Your task to perform on an android device: toggle improve location accuracy Image 0: 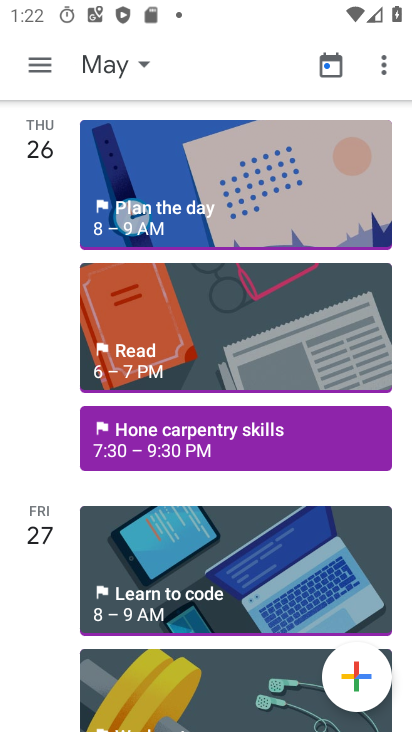
Step 0: press home button
Your task to perform on an android device: toggle improve location accuracy Image 1: 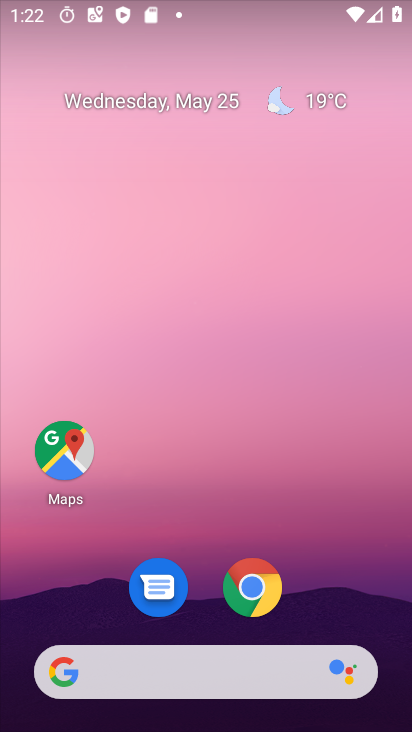
Step 1: drag from (226, 706) to (228, 209)
Your task to perform on an android device: toggle improve location accuracy Image 2: 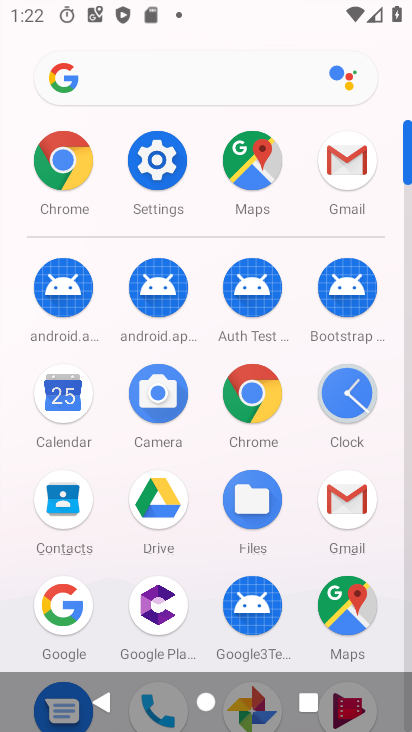
Step 2: click (165, 161)
Your task to perform on an android device: toggle improve location accuracy Image 3: 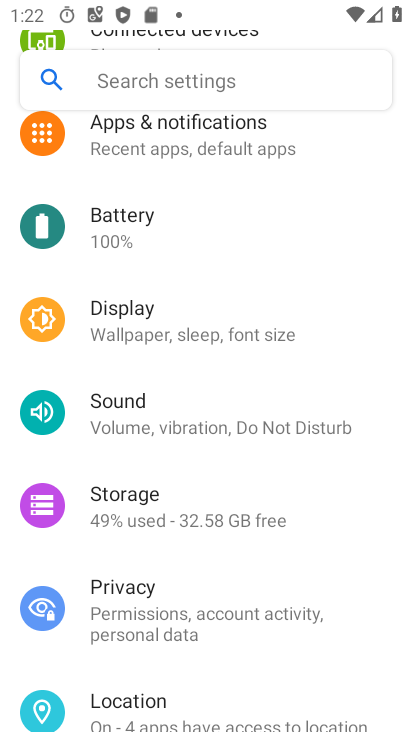
Step 3: click (159, 704)
Your task to perform on an android device: toggle improve location accuracy Image 4: 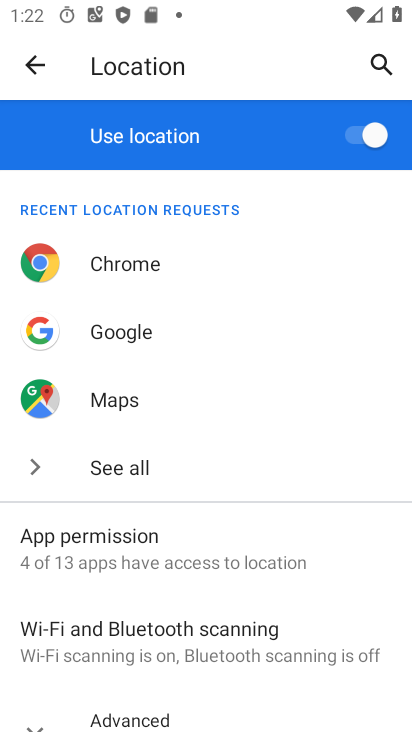
Step 4: drag from (168, 675) to (181, 214)
Your task to perform on an android device: toggle improve location accuracy Image 5: 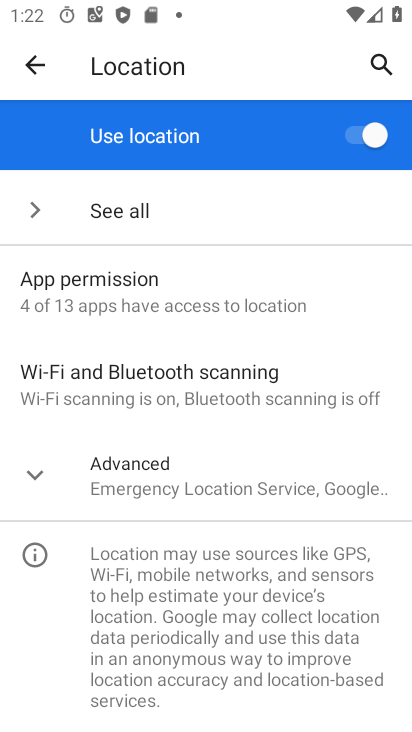
Step 5: click (147, 469)
Your task to perform on an android device: toggle improve location accuracy Image 6: 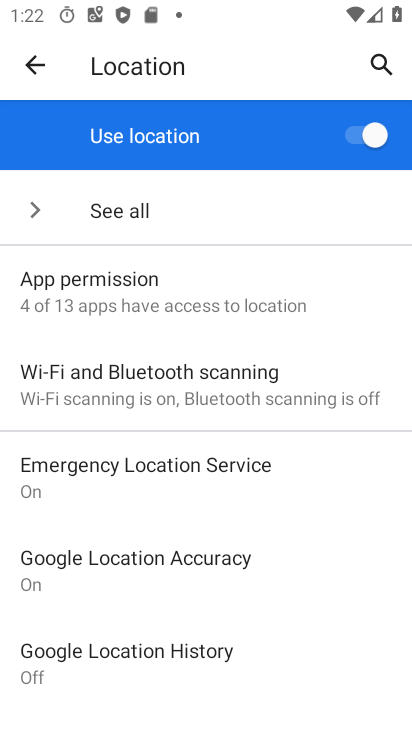
Step 6: click (190, 557)
Your task to perform on an android device: toggle improve location accuracy Image 7: 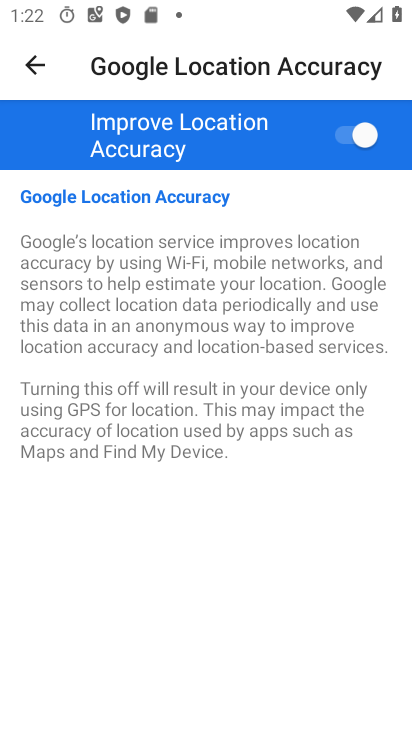
Step 7: click (338, 137)
Your task to perform on an android device: toggle improve location accuracy Image 8: 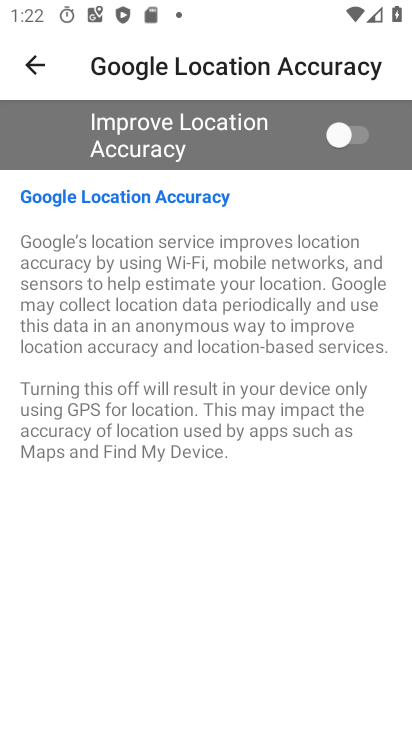
Step 8: task complete